Your task to perform on an android device: Open Chrome and go to settings Image 0: 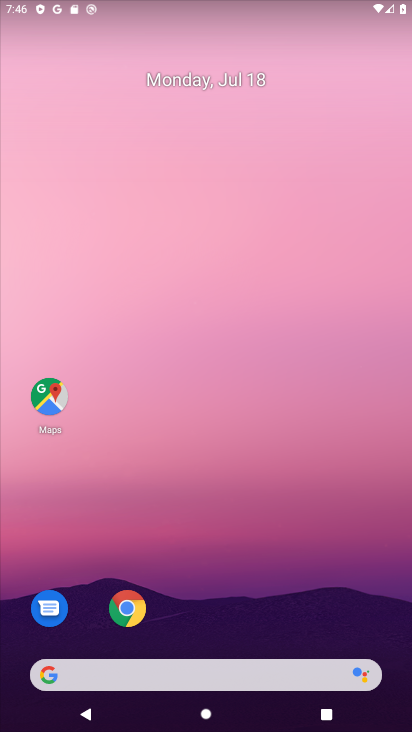
Step 0: drag from (191, 622) to (147, 132)
Your task to perform on an android device: Open Chrome and go to settings Image 1: 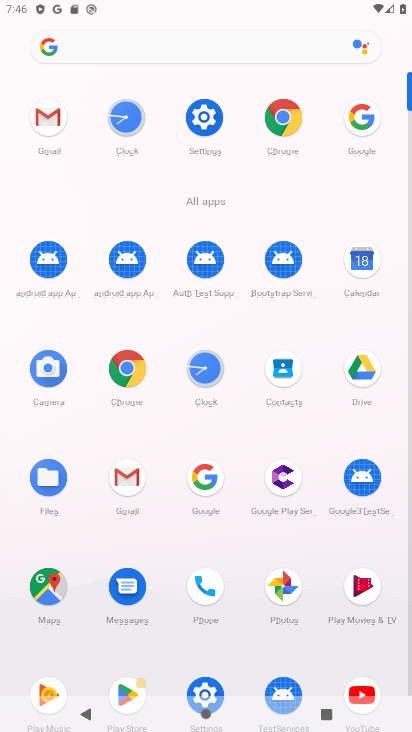
Step 1: click (127, 368)
Your task to perform on an android device: Open Chrome and go to settings Image 2: 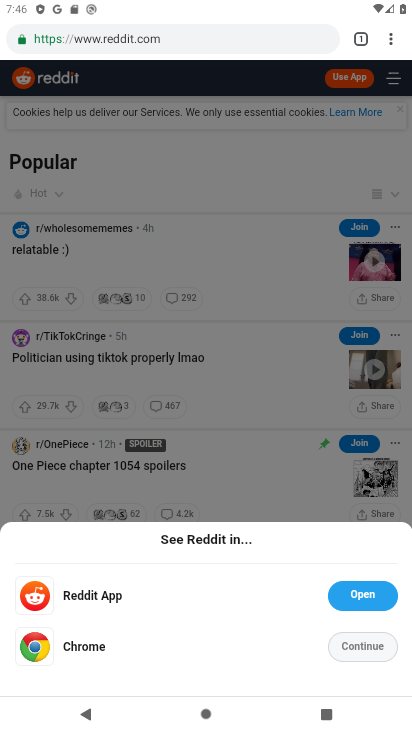
Step 2: click (387, 41)
Your task to perform on an android device: Open Chrome and go to settings Image 3: 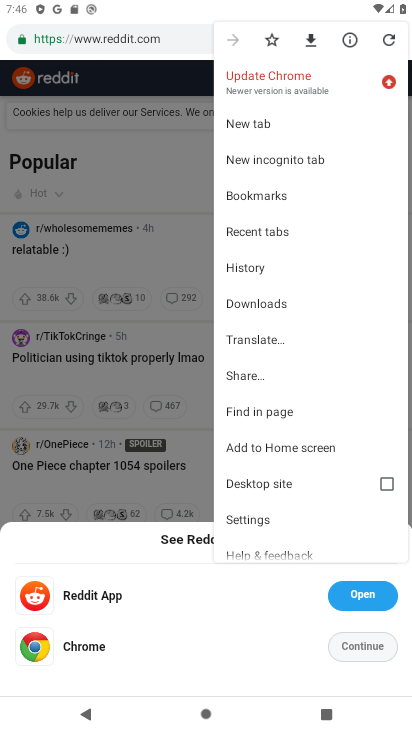
Step 3: click (264, 516)
Your task to perform on an android device: Open Chrome and go to settings Image 4: 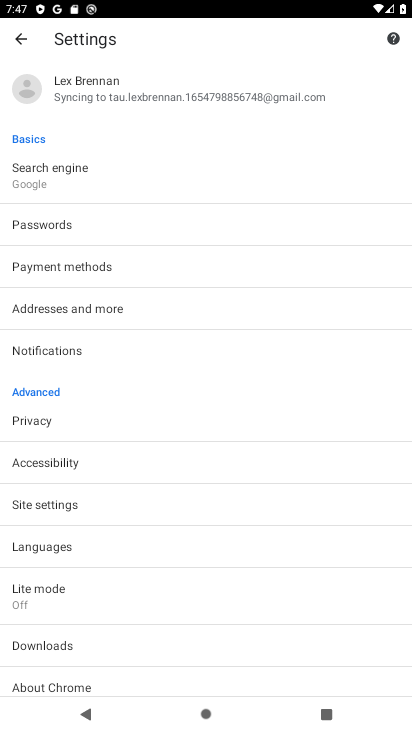
Step 4: task complete